Your task to perform on an android device: all mails in gmail Image 0: 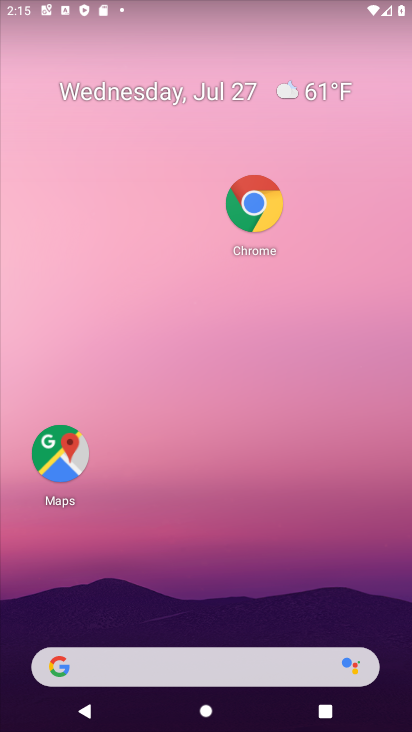
Step 0: drag from (187, 545) to (187, 115)
Your task to perform on an android device: all mails in gmail Image 1: 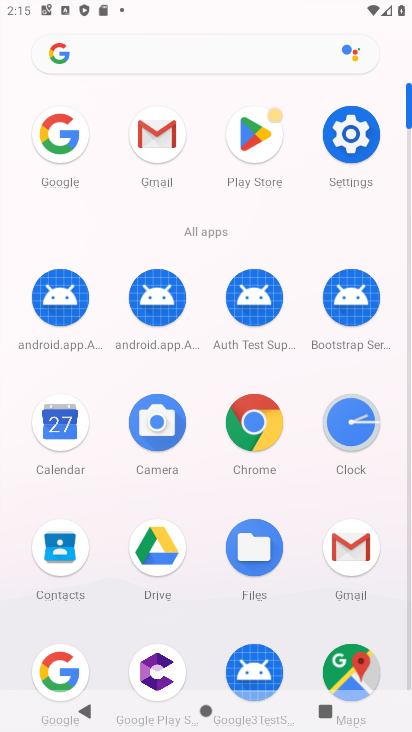
Step 1: click (169, 147)
Your task to perform on an android device: all mails in gmail Image 2: 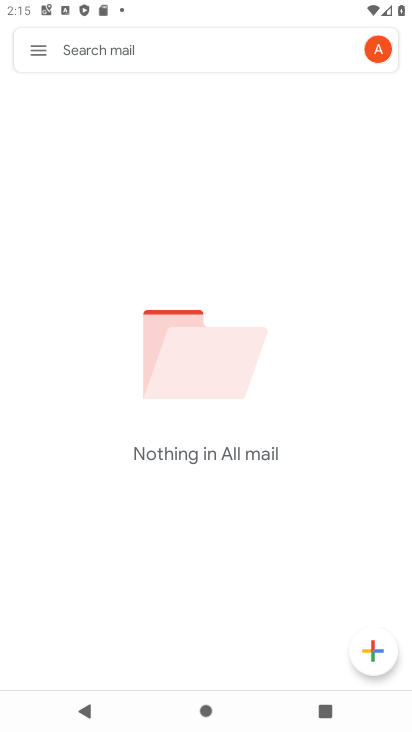
Step 2: click (48, 52)
Your task to perform on an android device: all mails in gmail Image 3: 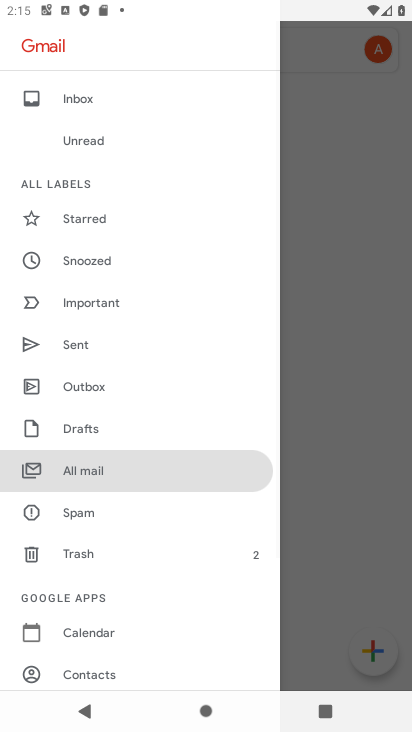
Step 3: click (115, 483)
Your task to perform on an android device: all mails in gmail Image 4: 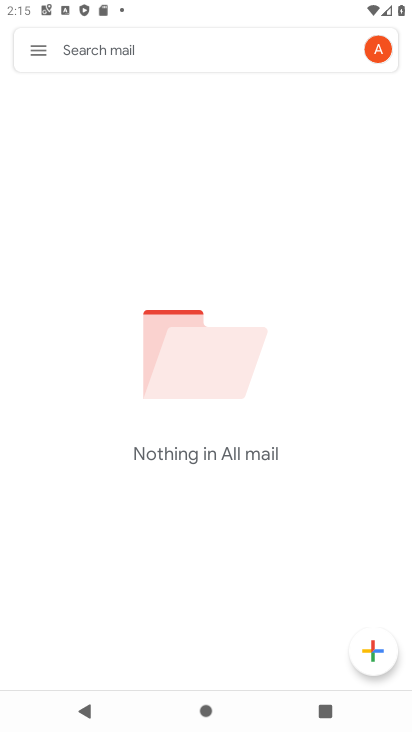
Step 4: task complete